Your task to perform on an android device: change the clock display to digital Image 0: 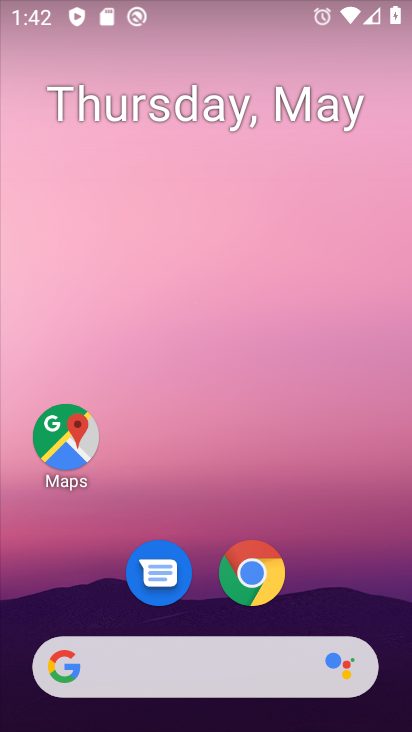
Step 0: drag from (392, 565) to (374, 418)
Your task to perform on an android device: change the clock display to digital Image 1: 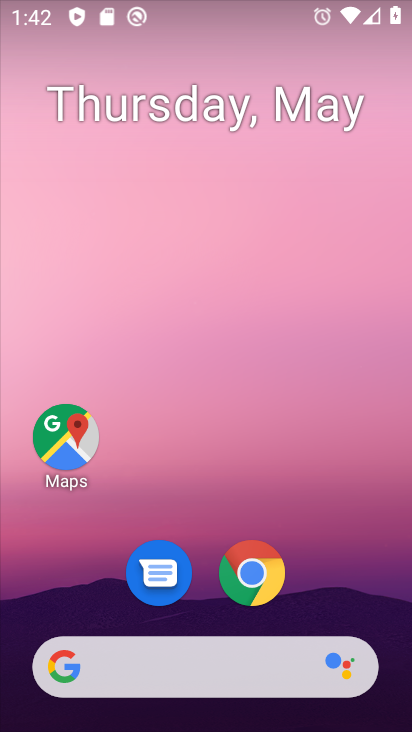
Step 1: drag from (383, 588) to (340, 209)
Your task to perform on an android device: change the clock display to digital Image 2: 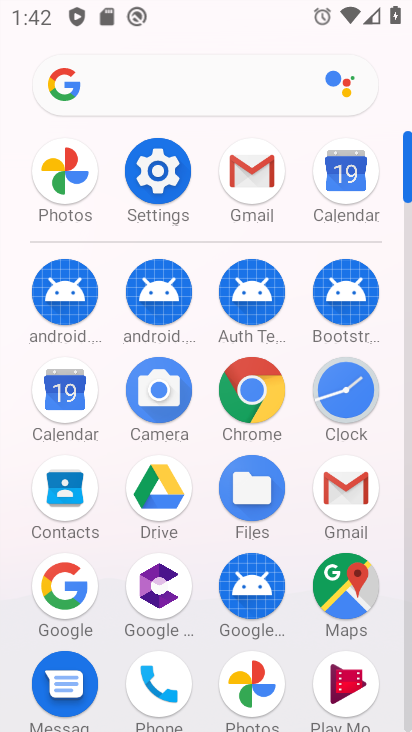
Step 2: click (349, 403)
Your task to perform on an android device: change the clock display to digital Image 3: 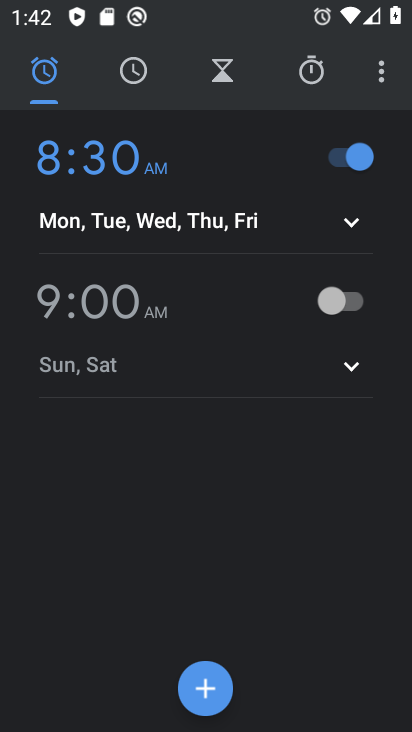
Step 3: click (384, 73)
Your task to perform on an android device: change the clock display to digital Image 4: 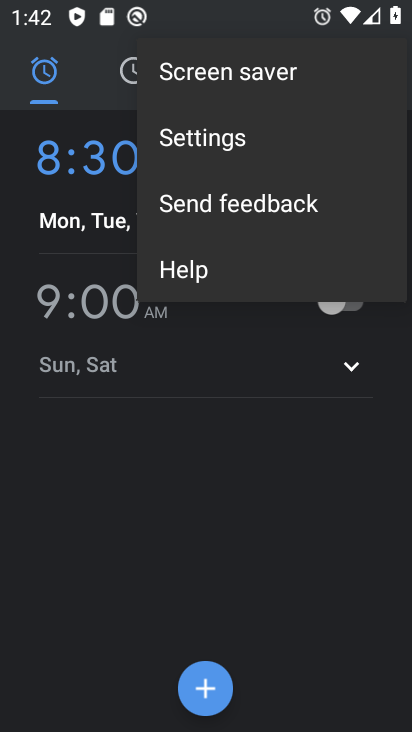
Step 4: click (186, 134)
Your task to perform on an android device: change the clock display to digital Image 5: 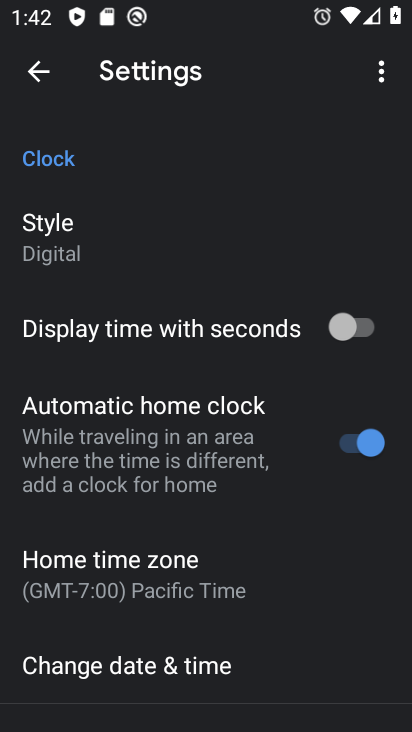
Step 5: click (58, 237)
Your task to perform on an android device: change the clock display to digital Image 6: 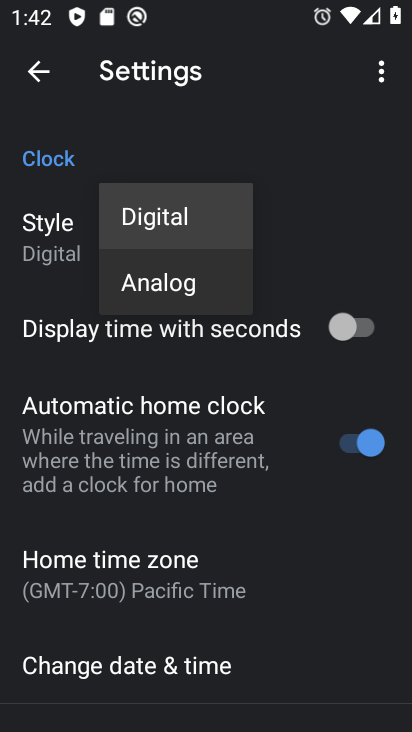
Step 6: click (170, 213)
Your task to perform on an android device: change the clock display to digital Image 7: 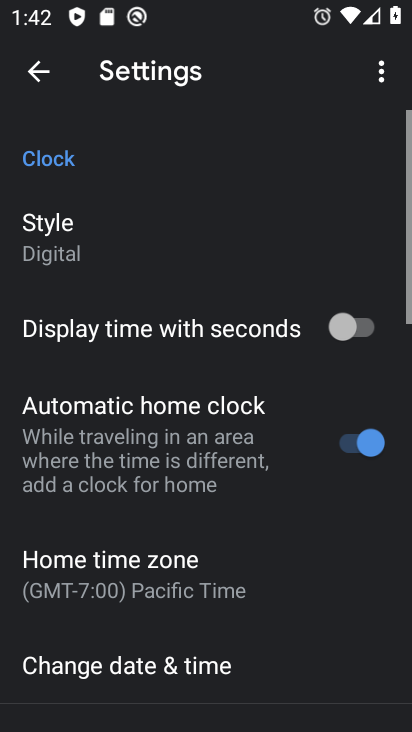
Step 7: task complete